Your task to perform on an android device: open a new tab in the chrome app Image 0: 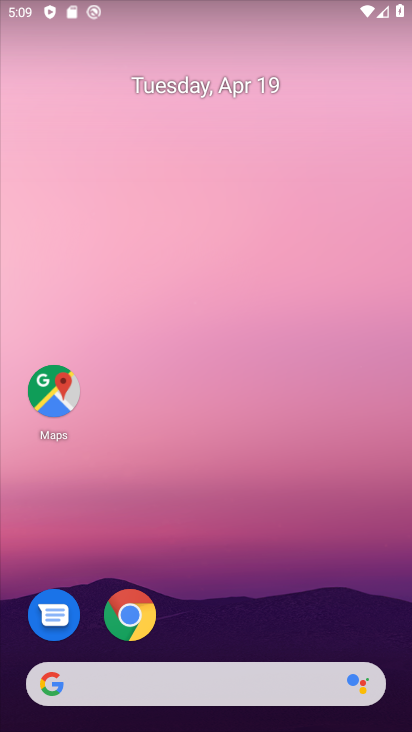
Step 0: click (128, 618)
Your task to perform on an android device: open a new tab in the chrome app Image 1: 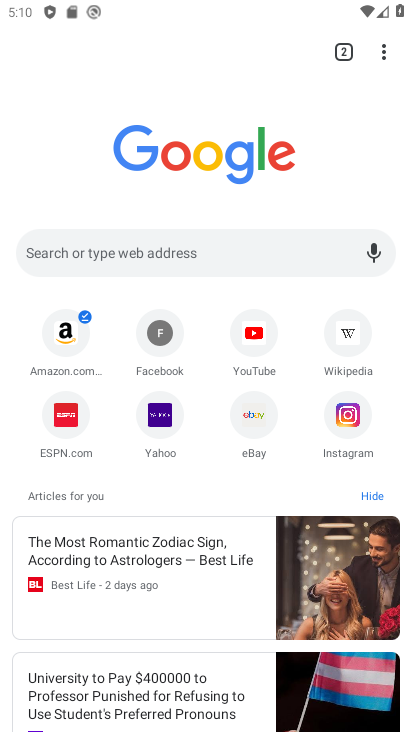
Step 1: click (383, 51)
Your task to perform on an android device: open a new tab in the chrome app Image 2: 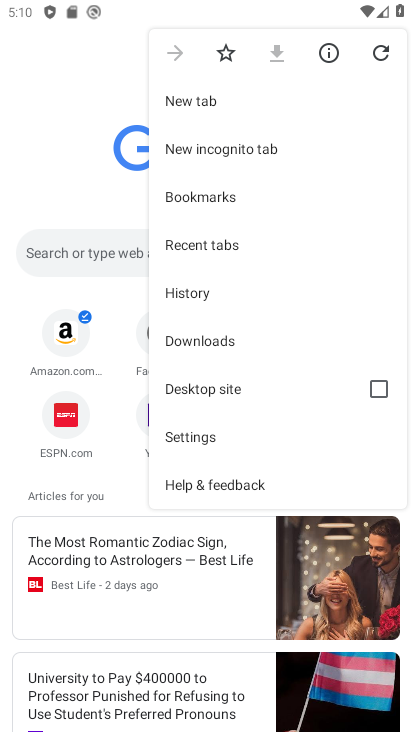
Step 2: click (202, 102)
Your task to perform on an android device: open a new tab in the chrome app Image 3: 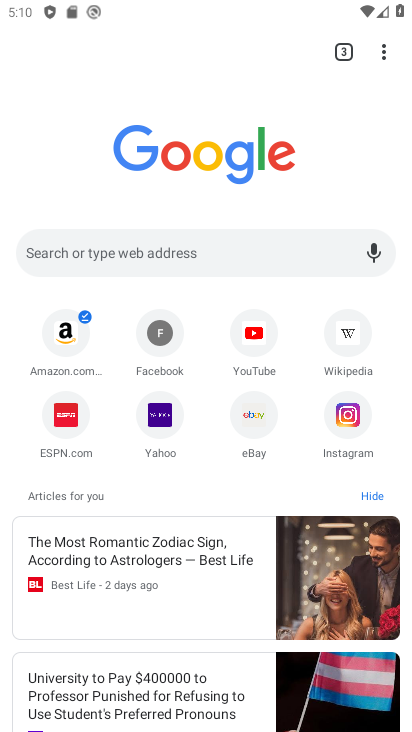
Step 3: task complete